Your task to perform on an android device: turn off wifi Image 0: 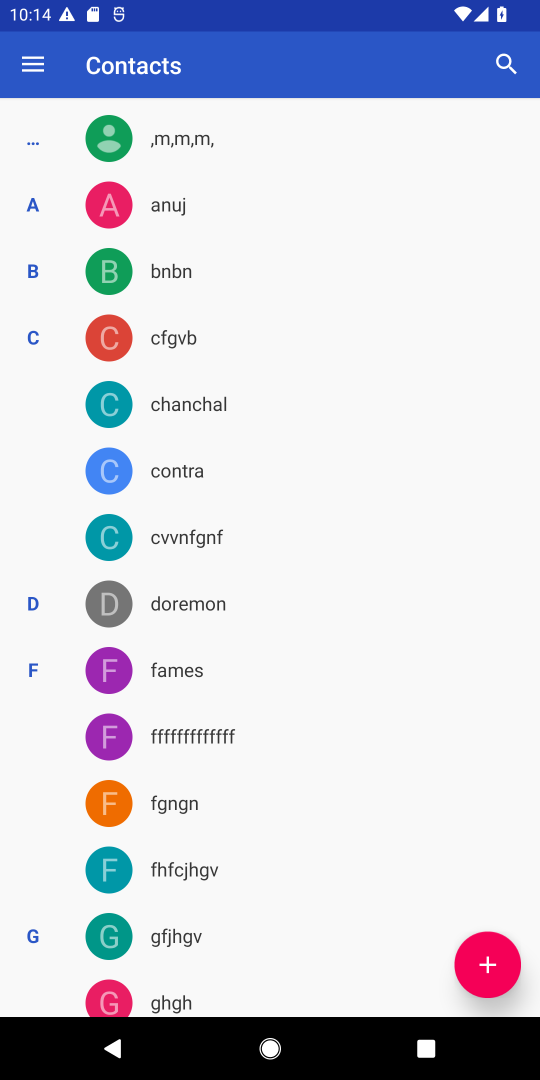
Step 0: press home button
Your task to perform on an android device: turn off wifi Image 1: 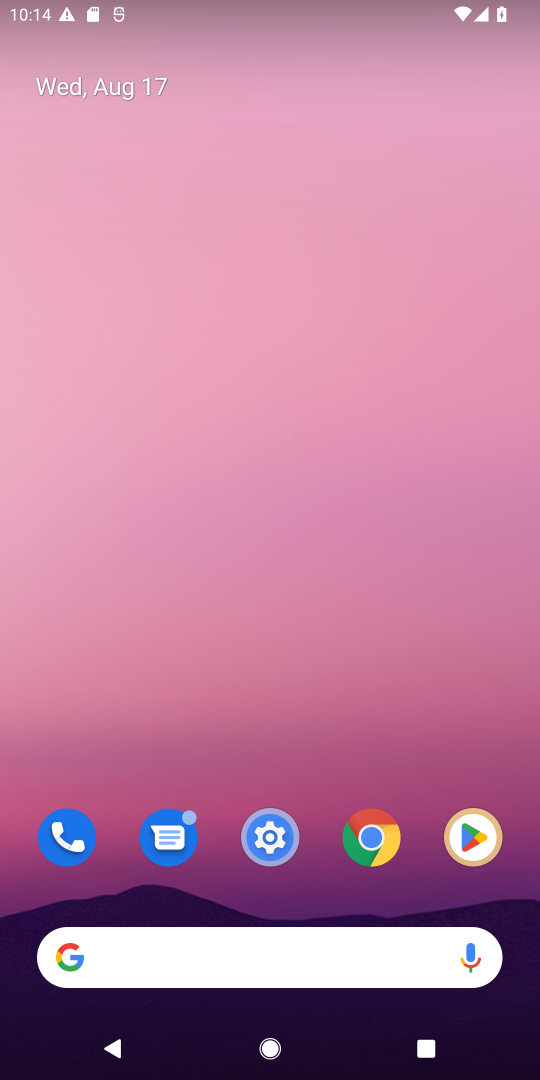
Step 1: drag from (254, 951) to (329, 21)
Your task to perform on an android device: turn off wifi Image 2: 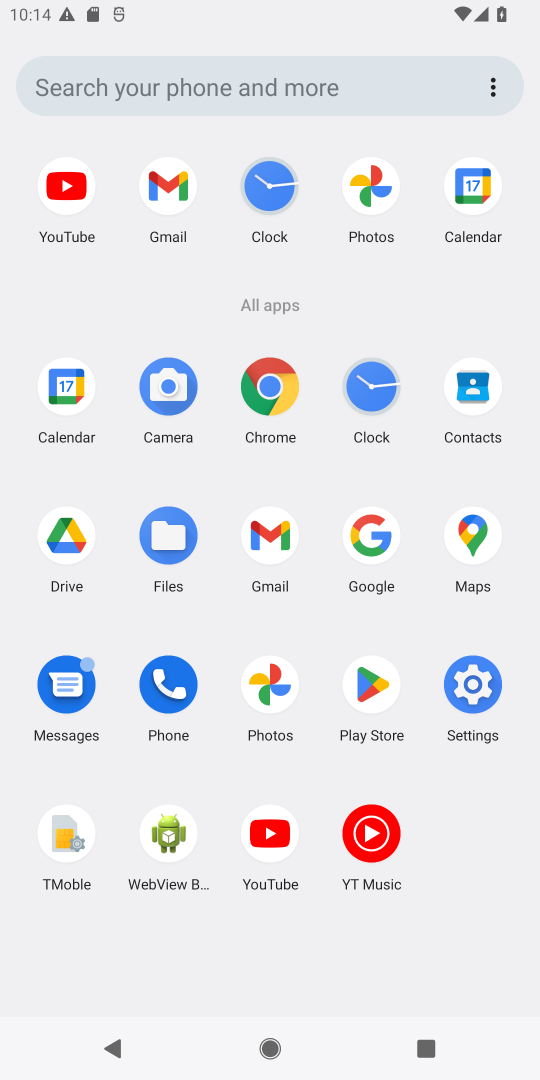
Step 2: click (472, 685)
Your task to perform on an android device: turn off wifi Image 3: 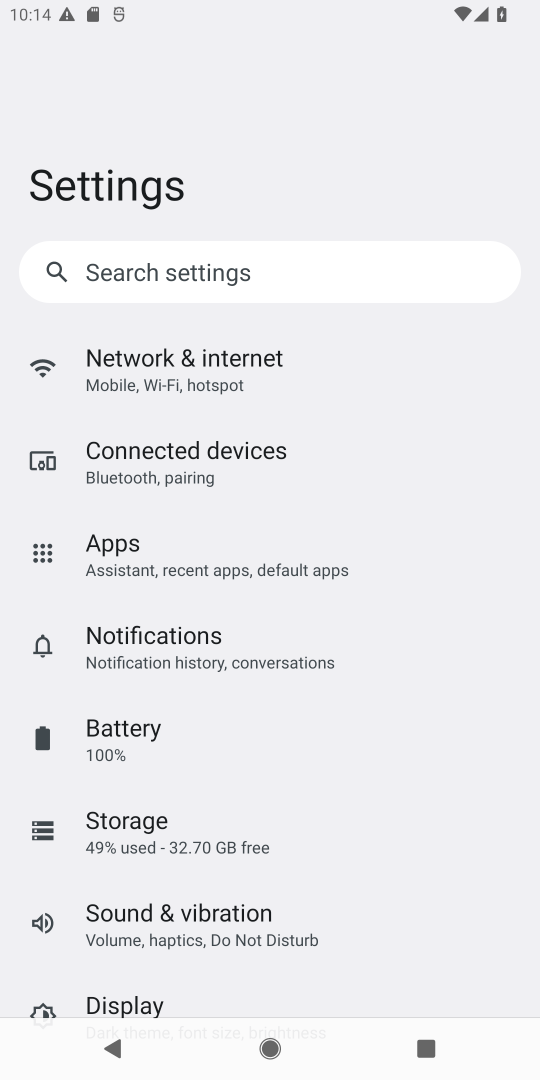
Step 3: click (196, 377)
Your task to perform on an android device: turn off wifi Image 4: 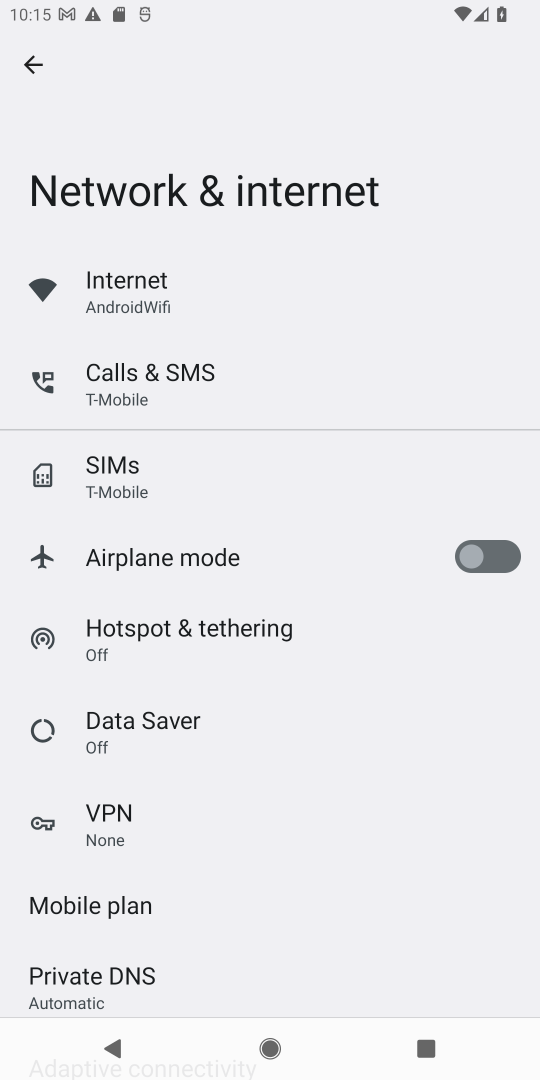
Step 4: click (157, 302)
Your task to perform on an android device: turn off wifi Image 5: 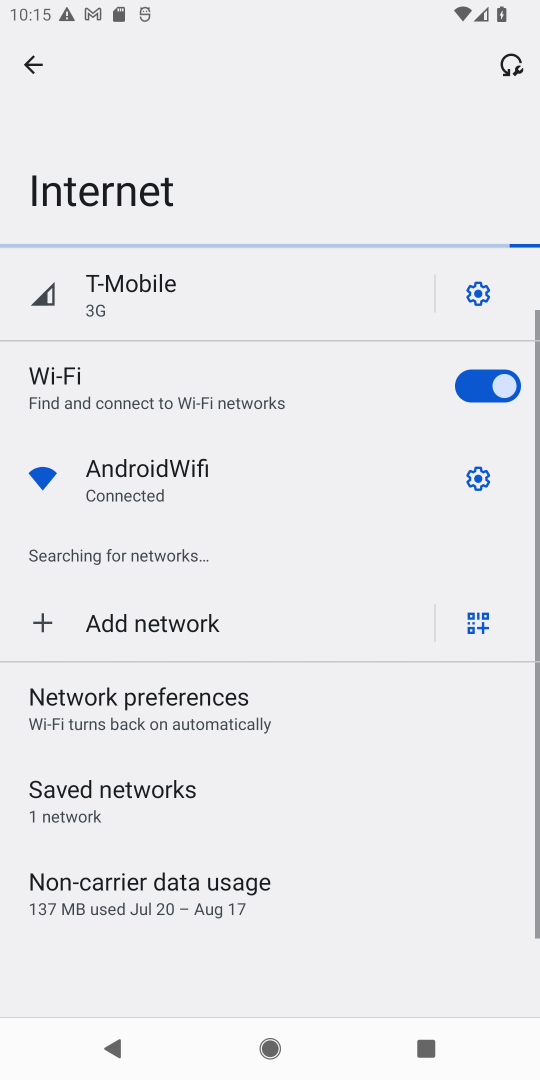
Step 5: click (464, 397)
Your task to perform on an android device: turn off wifi Image 6: 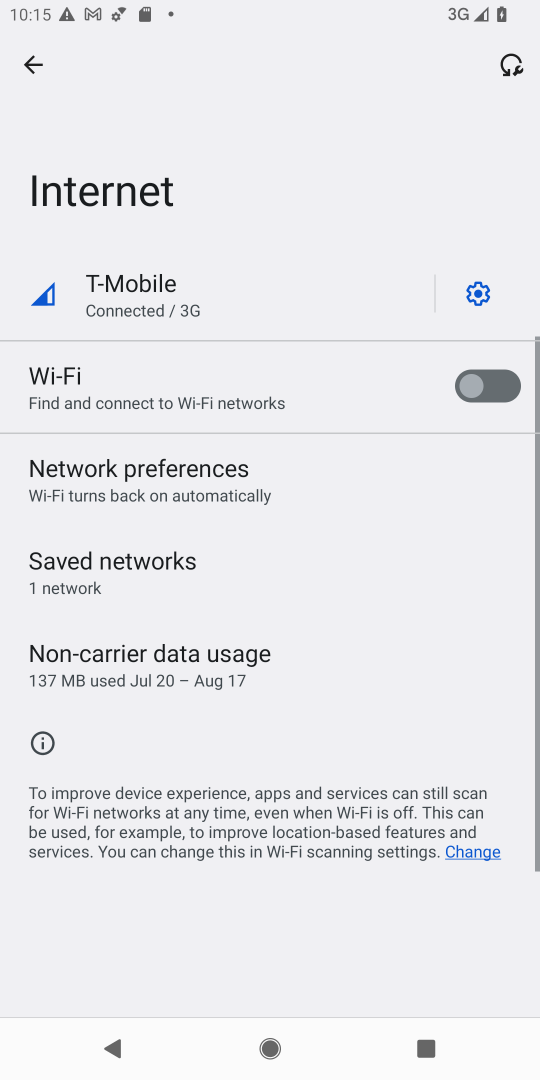
Step 6: task complete